Your task to perform on an android device: Open Google Chrome and open the bookmarks view Image 0: 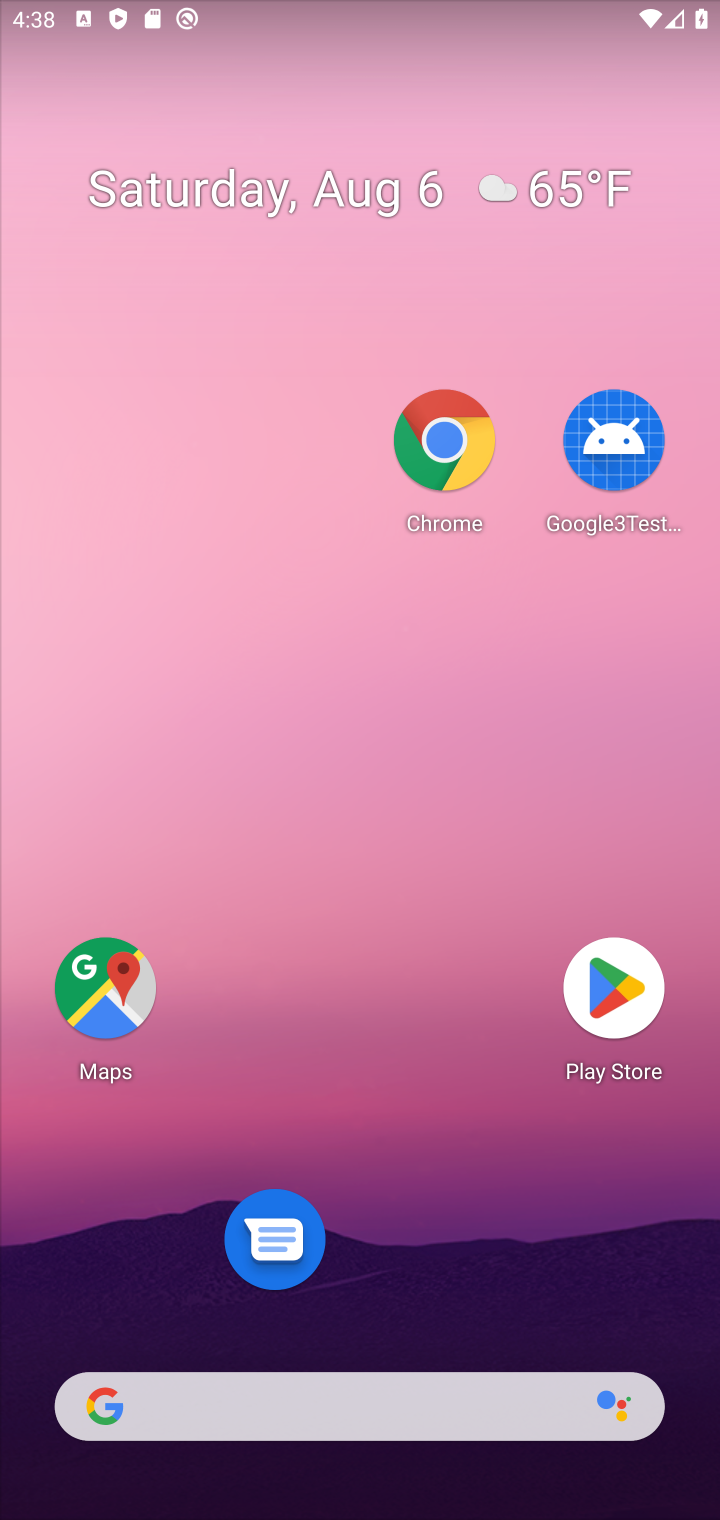
Step 0: drag from (350, 1398) to (156, 1)
Your task to perform on an android device: Open Google Chrome and open the bookmarks view Image 1: 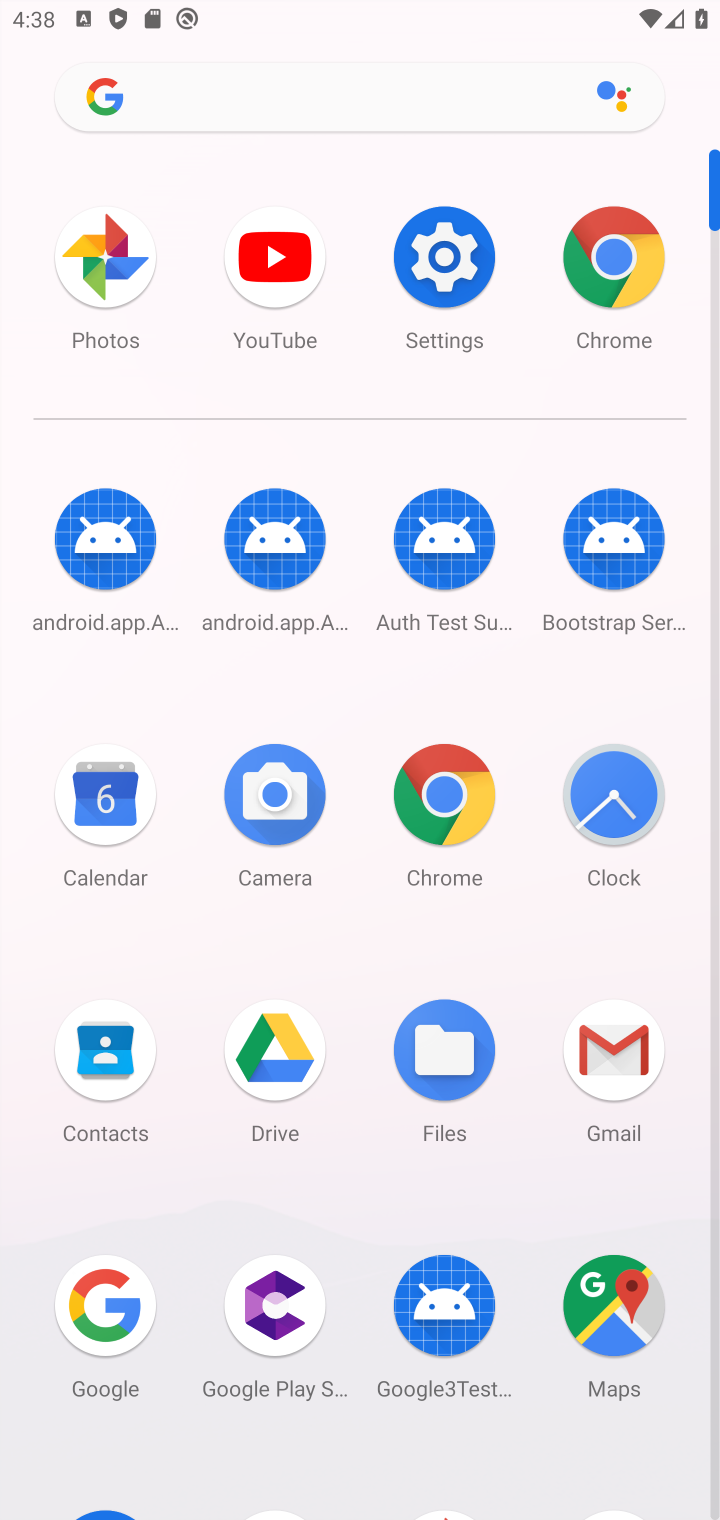
Step 1: click (471, 808)
Your task to perform on an android device: Open Google Chrome and open the bookmarks view Image 2: 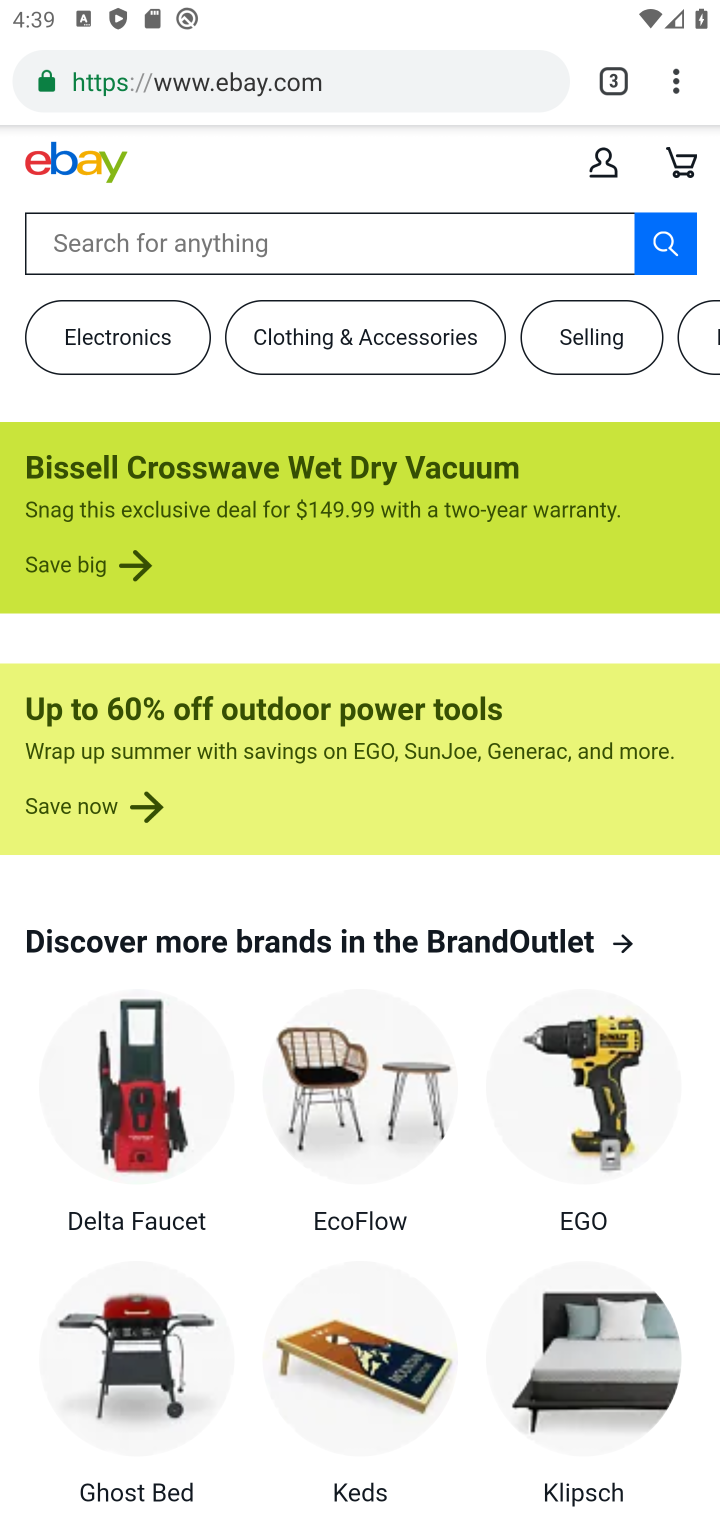
Step 2: click (668, 78)
Your task to perform on an android device: Open Google Chrome and open the bookmarks view Image 3: 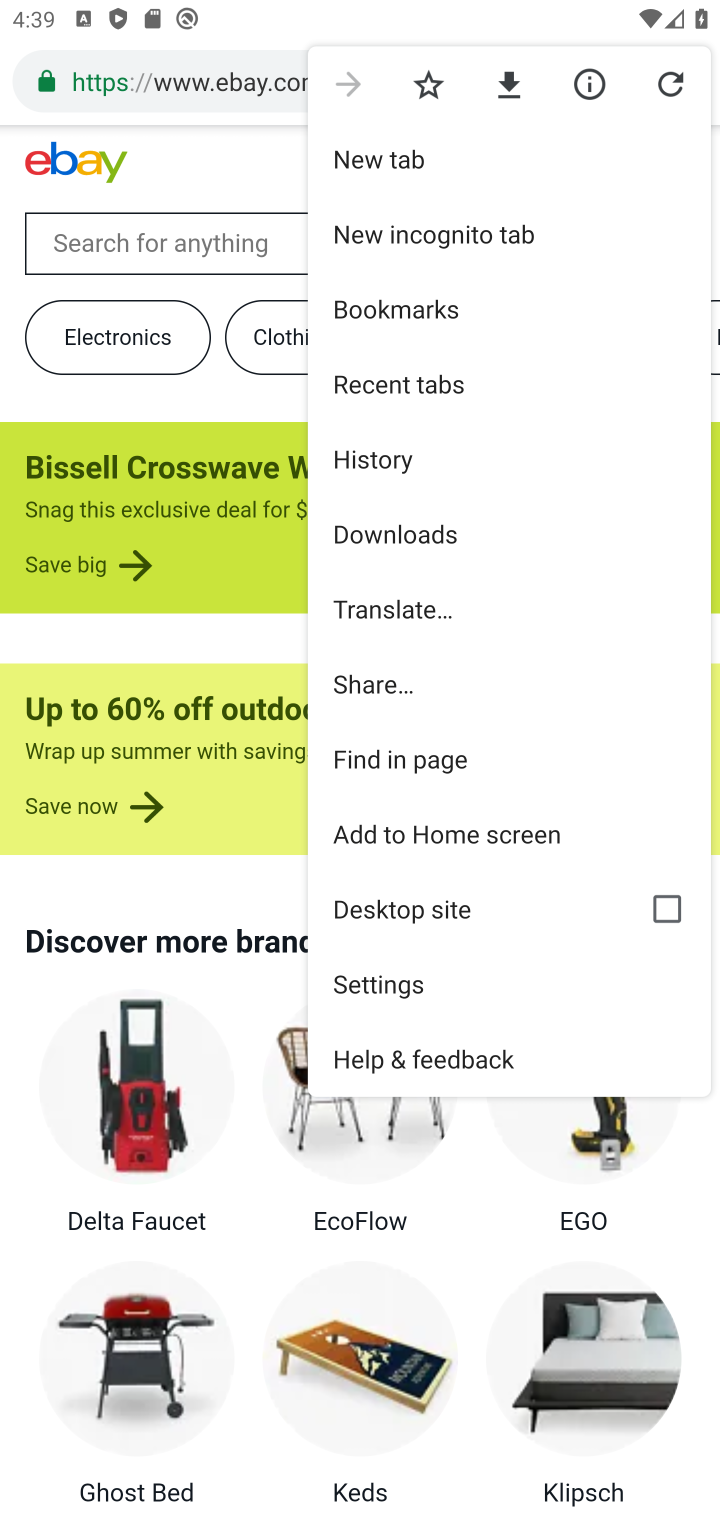
Step 3: click (444, 306)
Your task to perform on an android device: Open Google Chrome and open the bookmarks view Image 4: 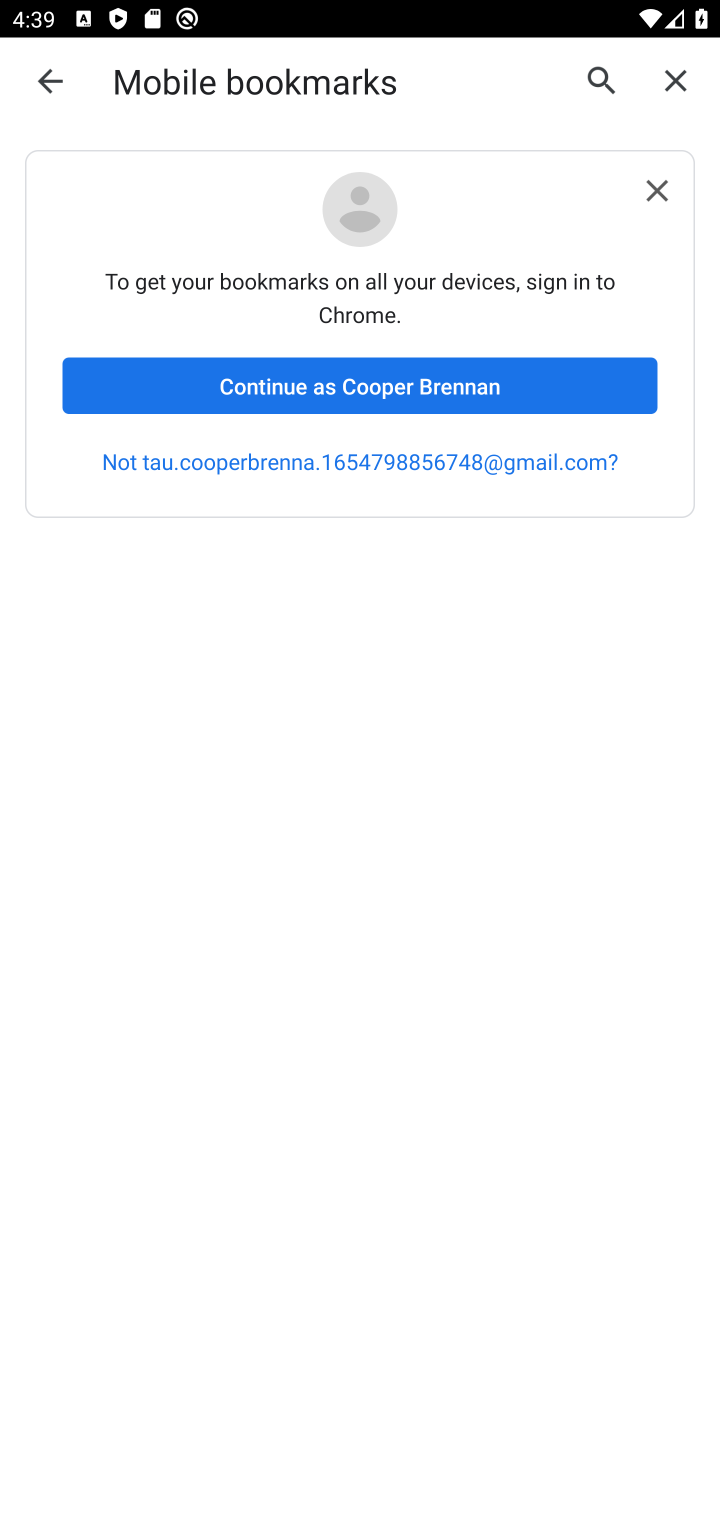
Step 4: task complete